Your task to perform on an android device: Find coffee shops on Maps Image 0: 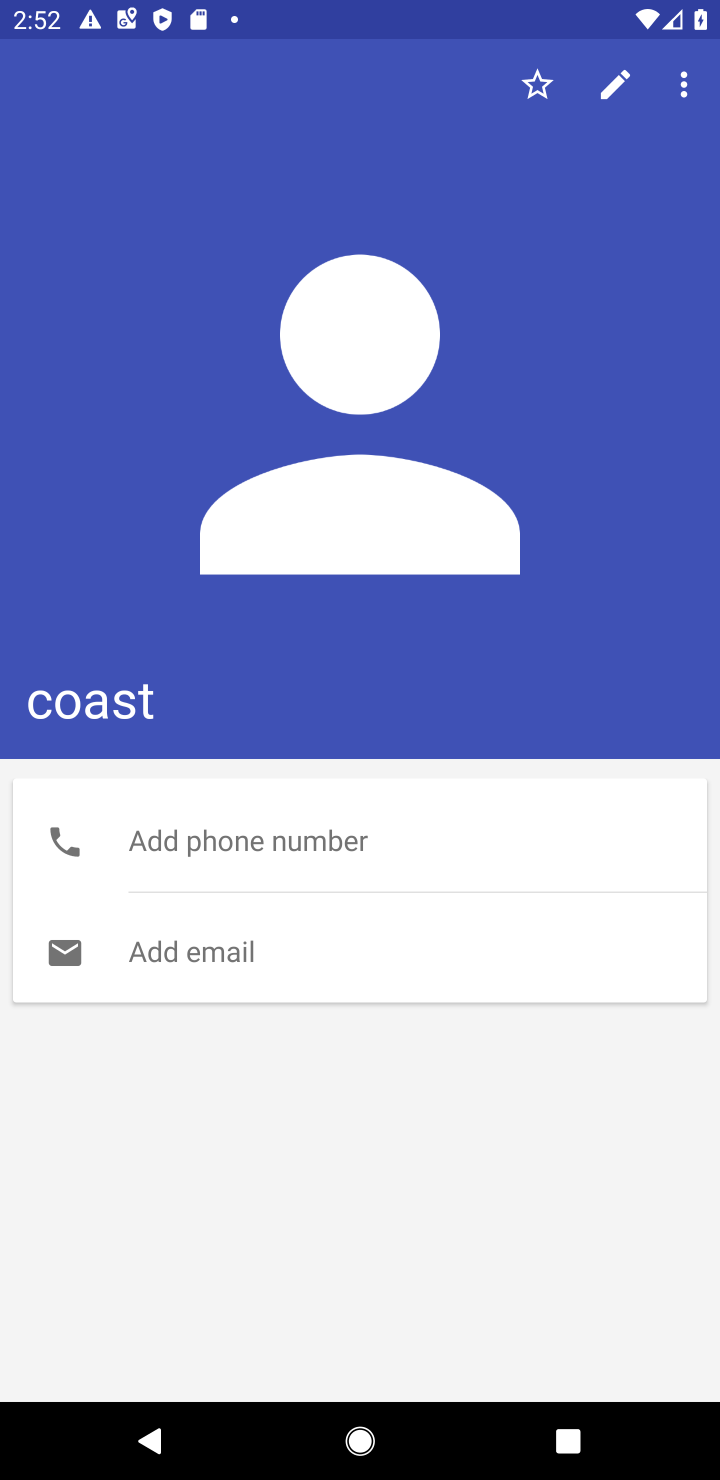
Step 0: press home button
Your task to perform on an android device: Find coffee shops on Maps Image 1: 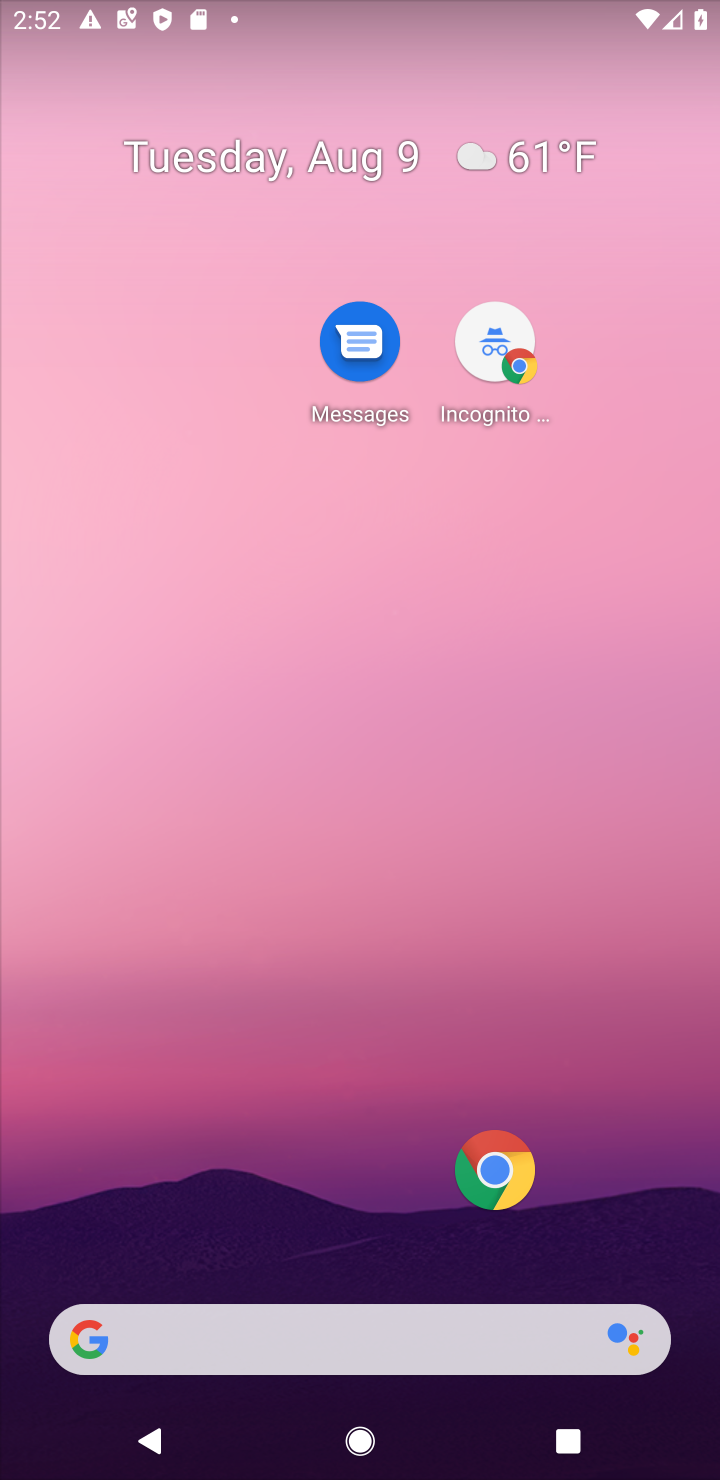
Step 1: drag from (231, 1137) to (718, 151)
Your task to perform on an android device: Find coffee shops on Maps Image 2: 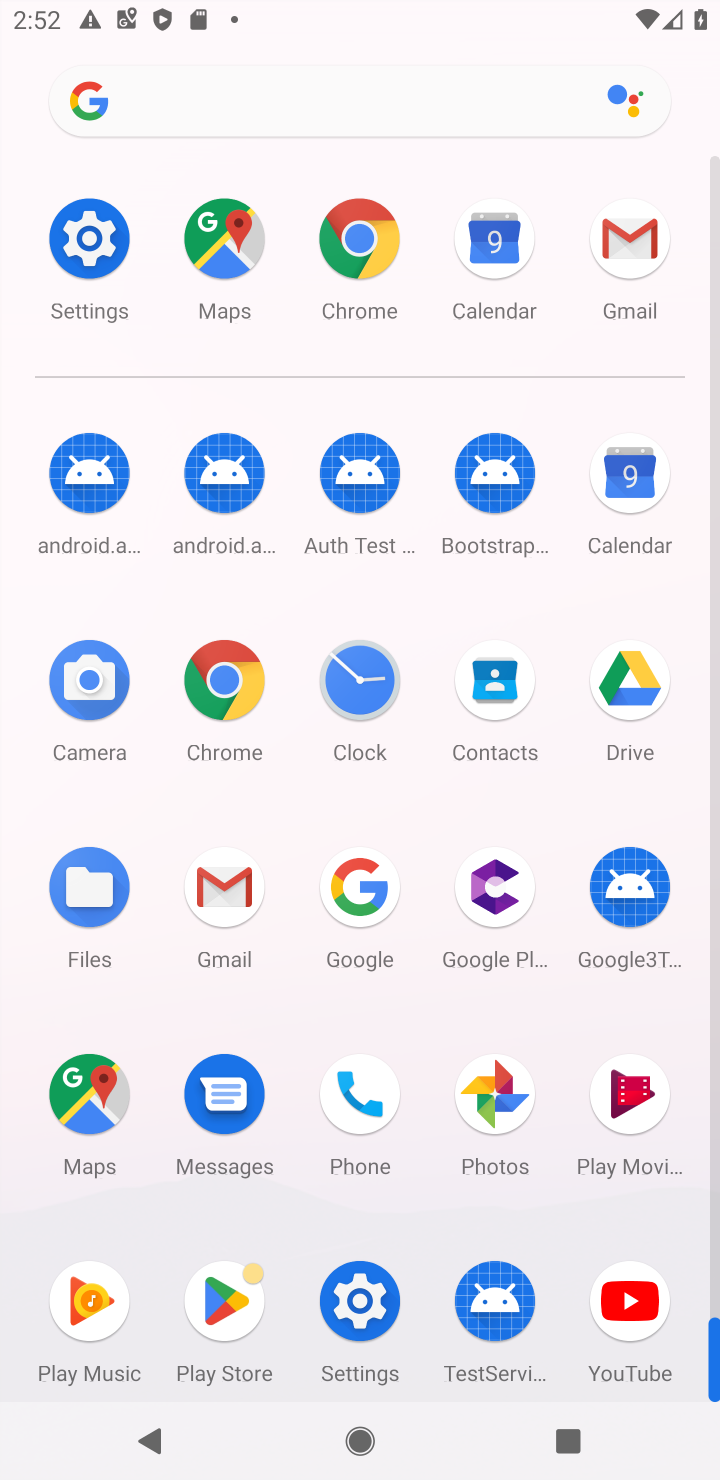
Step 2: click (81, 1083)
Your task to perform on an android device: Find coffee shops on Maps Image 3: 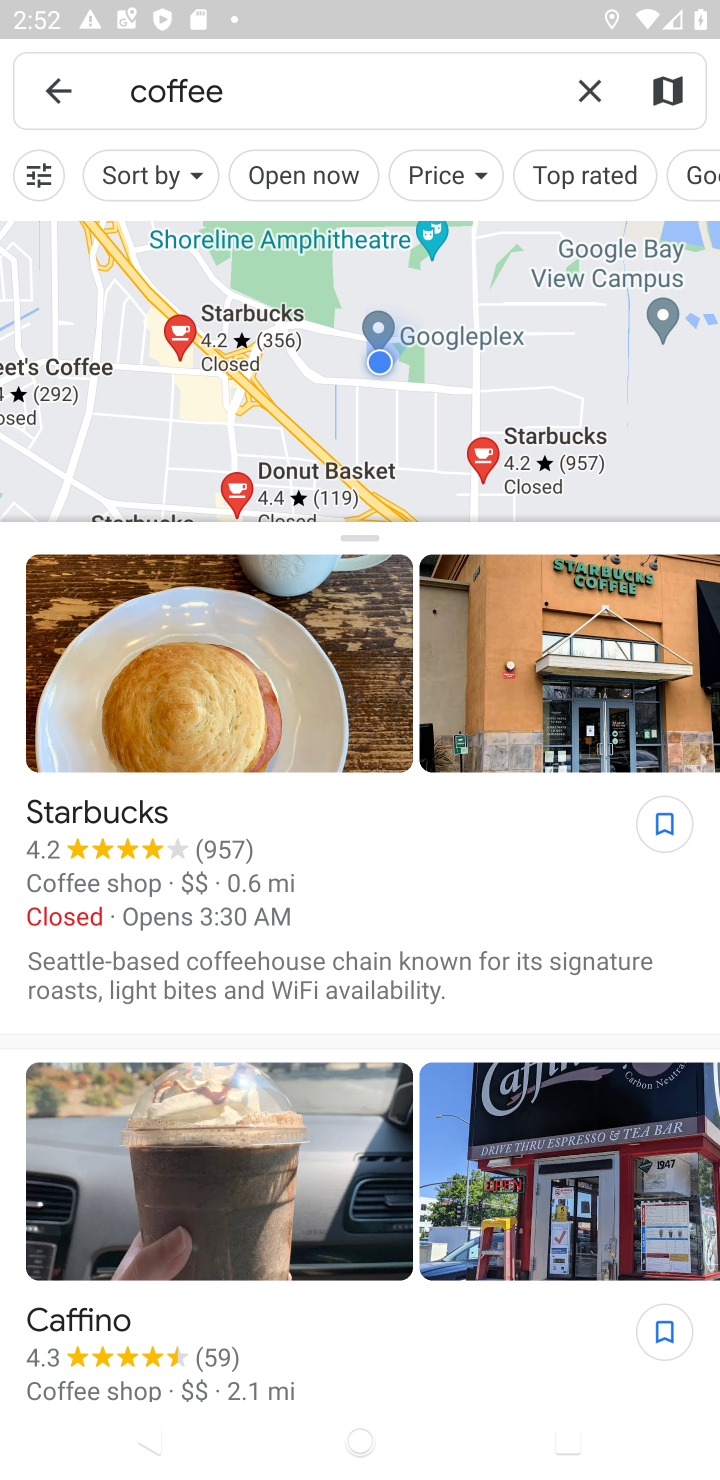
Step 3: click (258, 82)
Your task to perform on an android device: Find coffee shops on Maps Image 4: 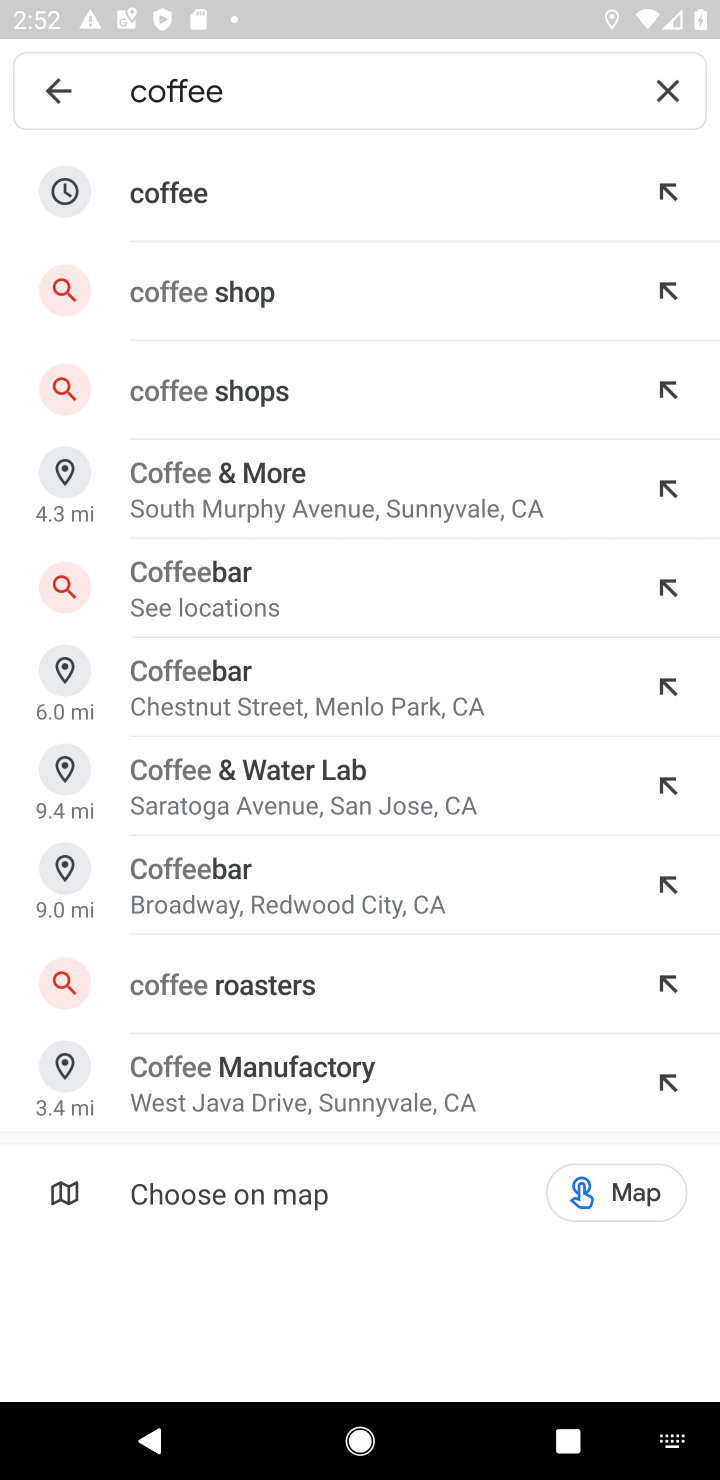
Step 4: type " shops"
Your task to perform on an android device: Find coffee shops on Maps Image 5: 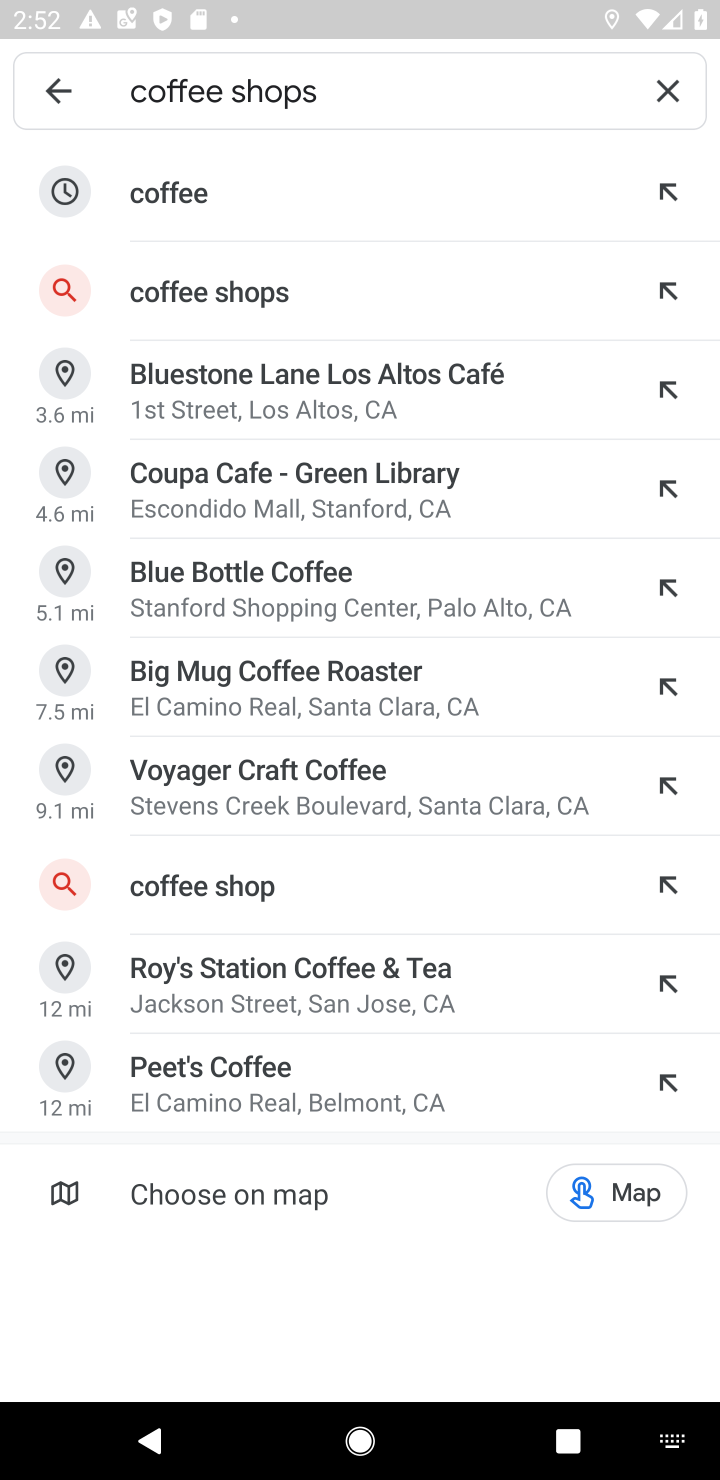
Step 5: click (277, 293)
Your task to perform on an android device: Find coffee shops on Maps Image 6: 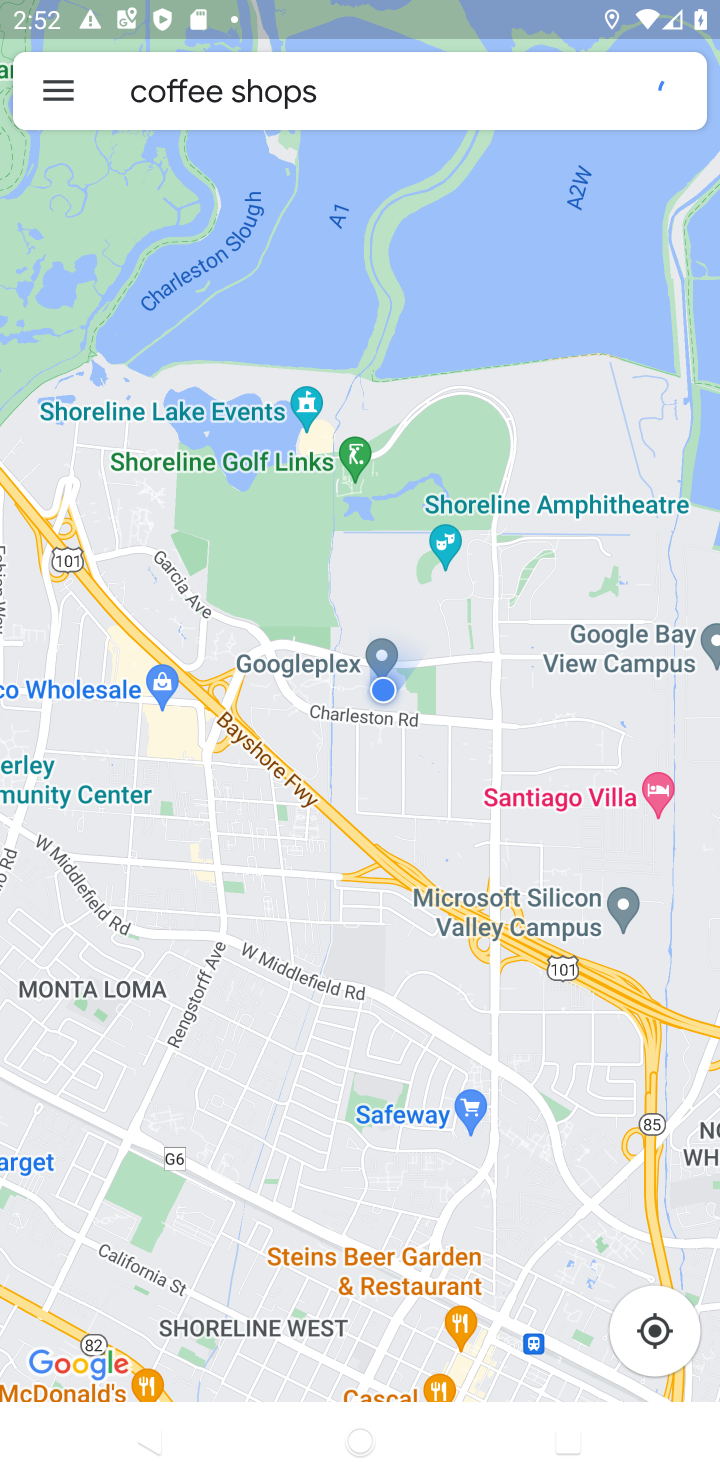
Step 6: task complete